Your task to perform on an android device: Search for Mexican restaurants on Maps Image 0: 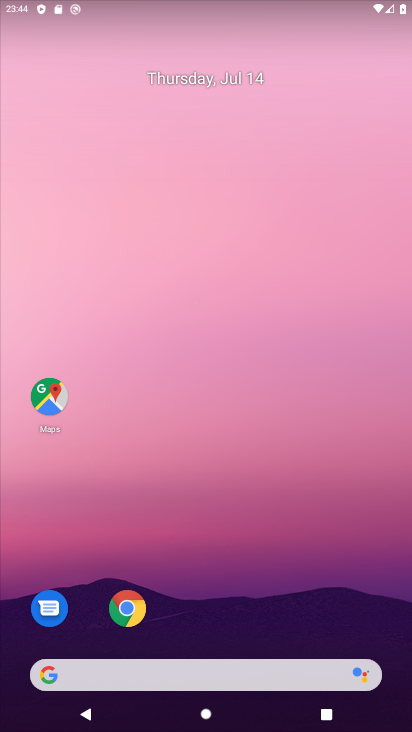
Step 0: click (39, 407)
Your task to perform on an android device: Search for Mexican restaurants on Maps Image 1: 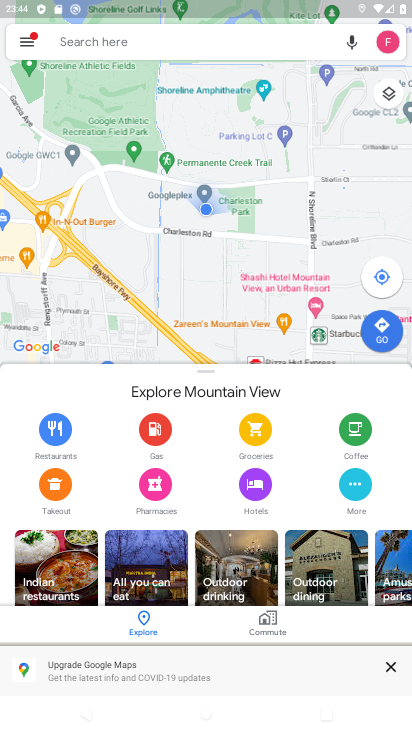
Step 1: click (95, 42)
Your task to perform on an android device: Search for Mexican restaurants on Maps Image 2: 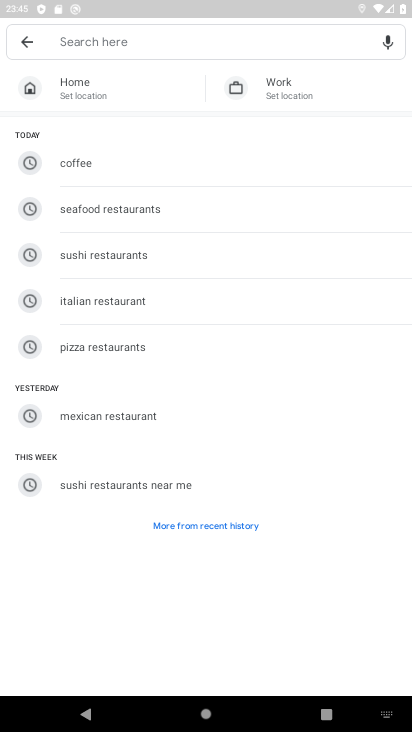
Step 2: click (123, 415)
Your task to perform on an android device: Search for Mexican restaurants on Maps Image 3: 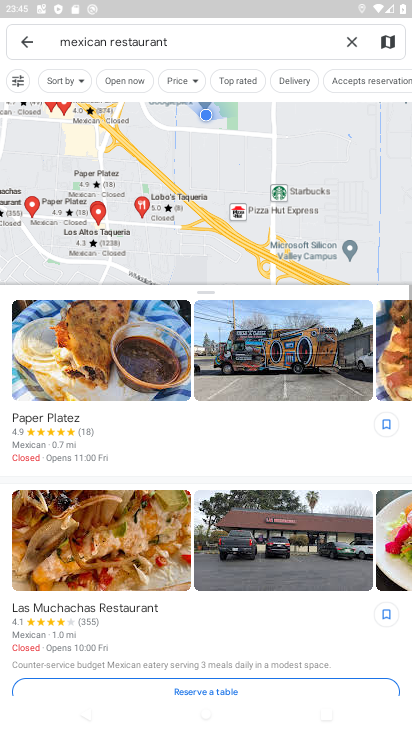
Step 3: task complete